Your task to perform on an android device: empty trash in google photos Image 0: 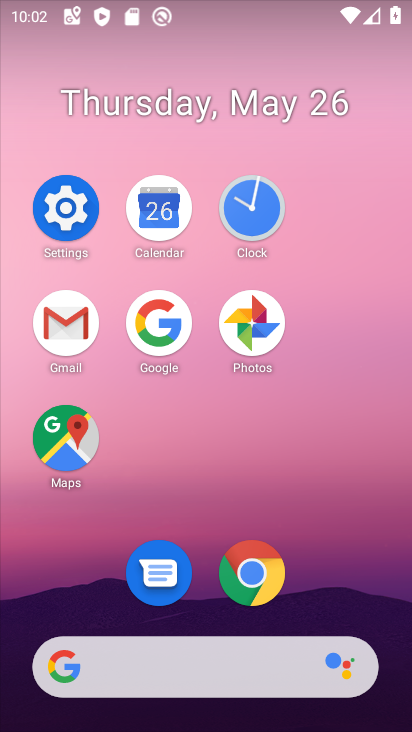
Step 0: click (260, 333)
Your task to perform on an android device: empty trash in google photos Image 1: 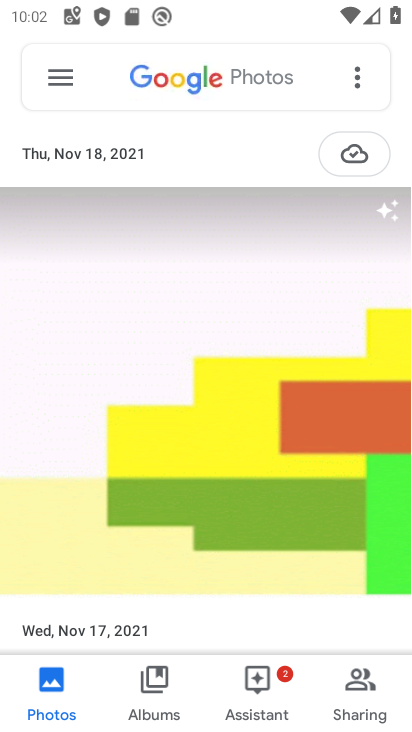
Step 1: click (54, 79)
Your task to perform on an android device: empty trash in google photos Image 2: 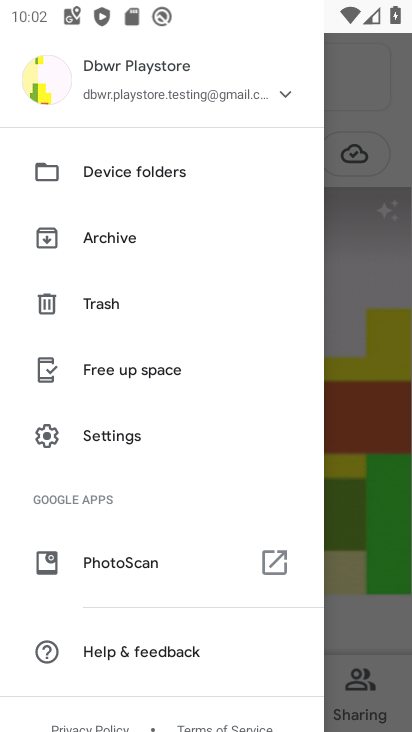
Step 2: click (109, 299)
Your task to perform on an android device: empty trash in google photos Image 3: 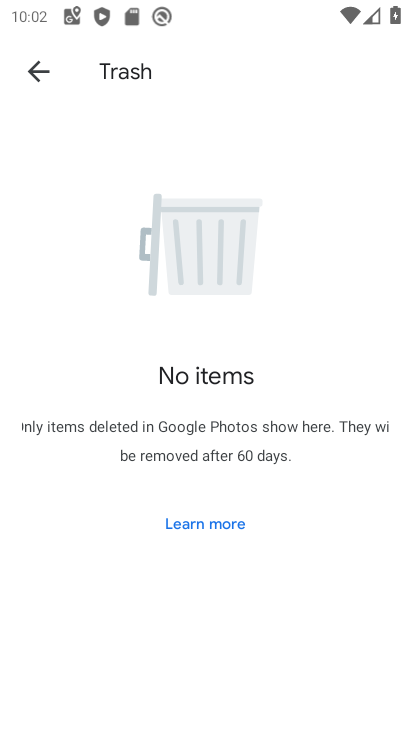
Step 3: task complete